Your task to perform on an android device: Go to internet settings Image 0: 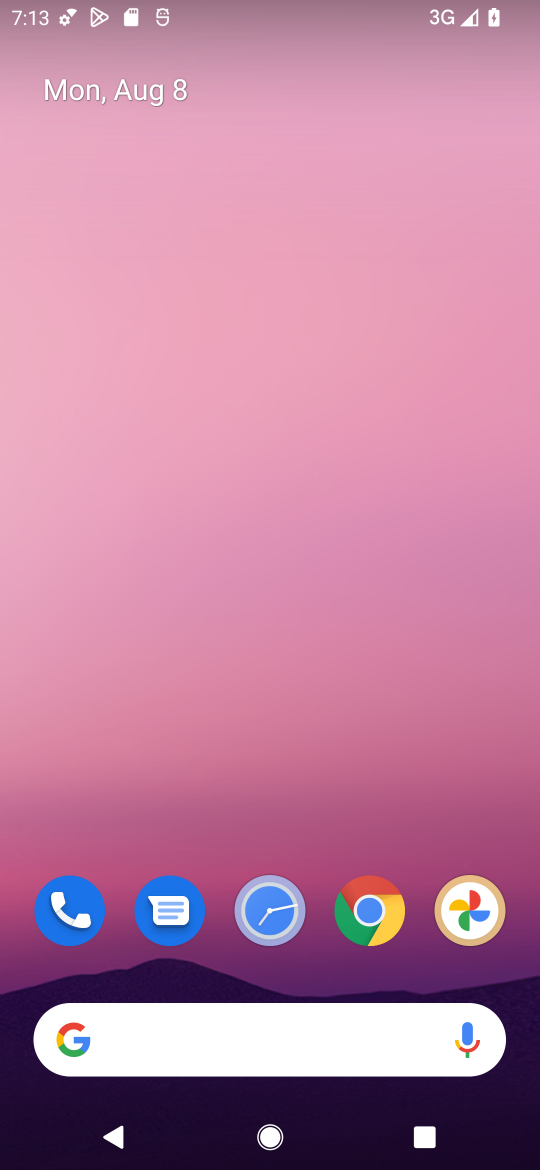
Step 0: drag from (258, 735) to (321, 190)
Your task to perform on an android device: Go to internet settings Image 1: 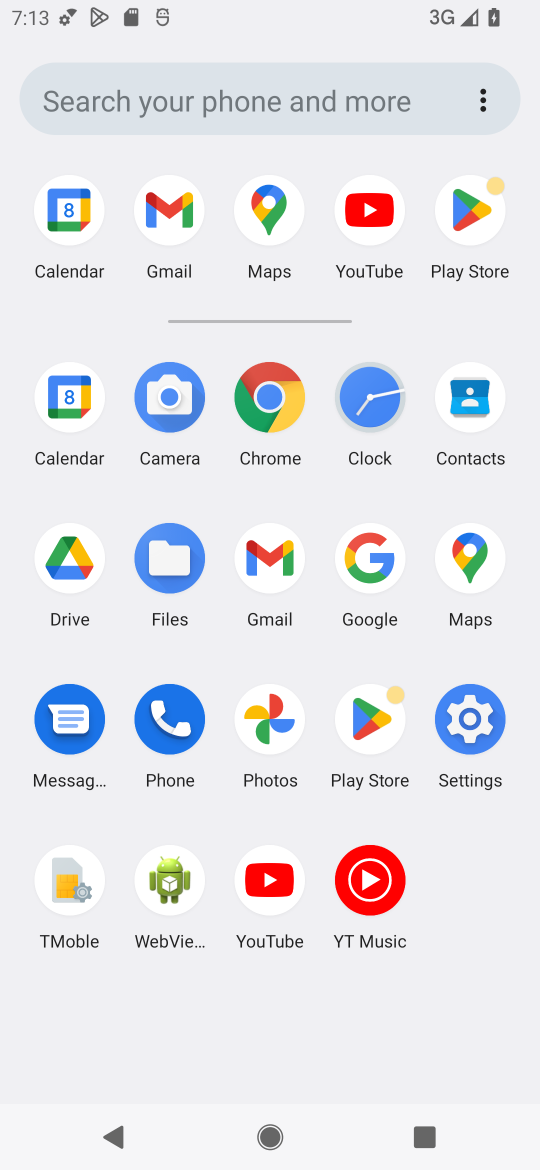
Step 1: click (488, 747)
Your task to perform on an android device: Go to internet settings Image 2: 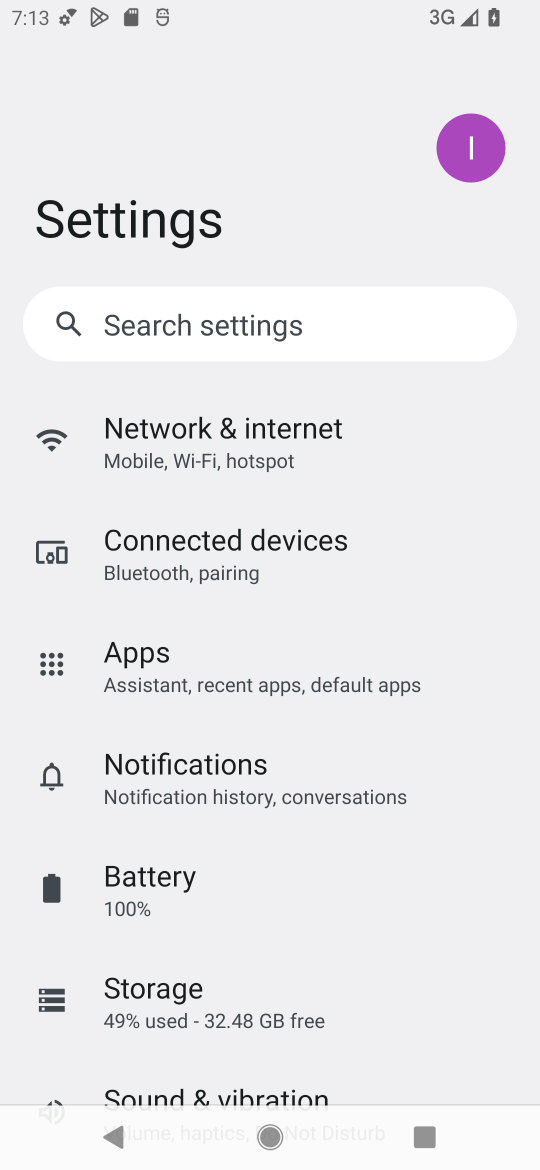
Step 2: click (302, 432)
Your task to perform on an android device: Go to internet settings Image 3: 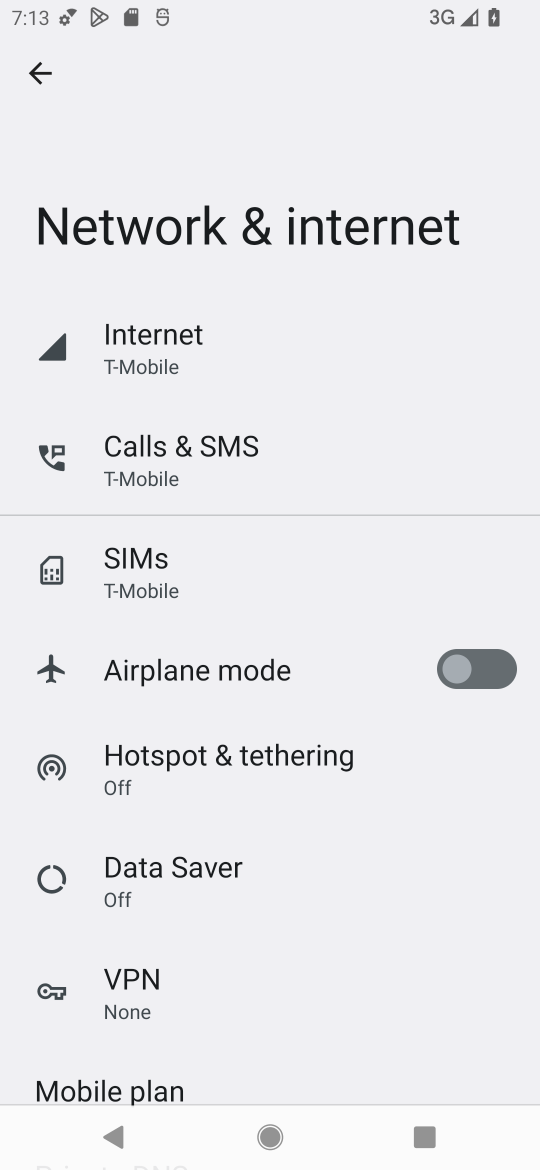
Step 3: click (254, 357)
Your task to perform on an android device: Go to internet settings Image 4: 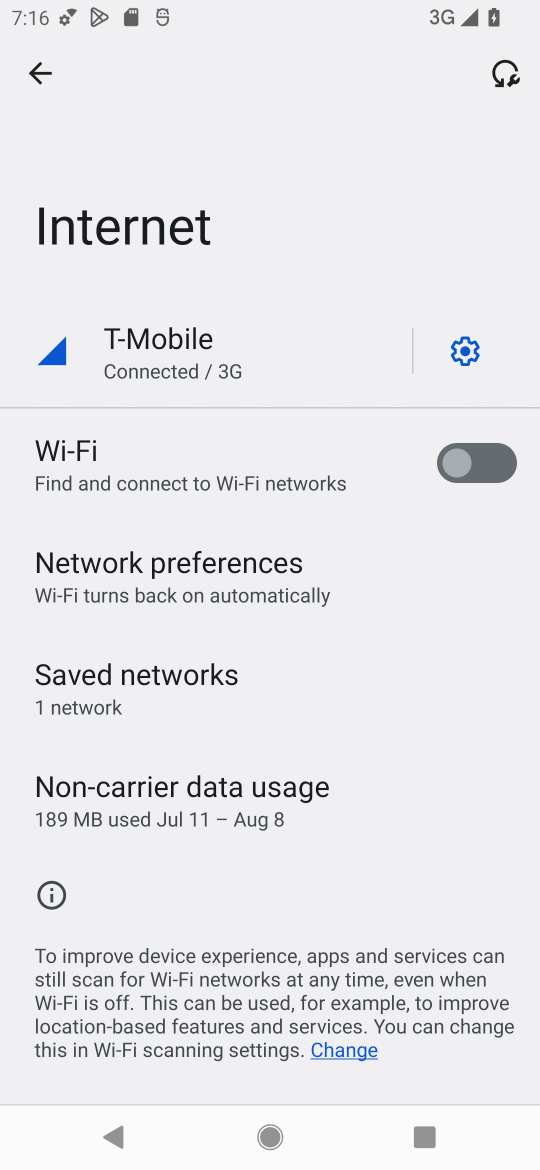
Step 4: task complete